Your task to perform on an android device: change timer sound Image 0: 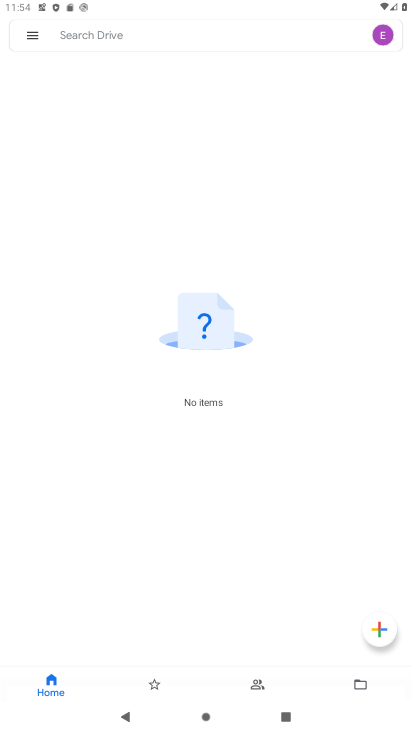
Step 0: press home button
Your task to perform on an android device: change timer sound Image 1: 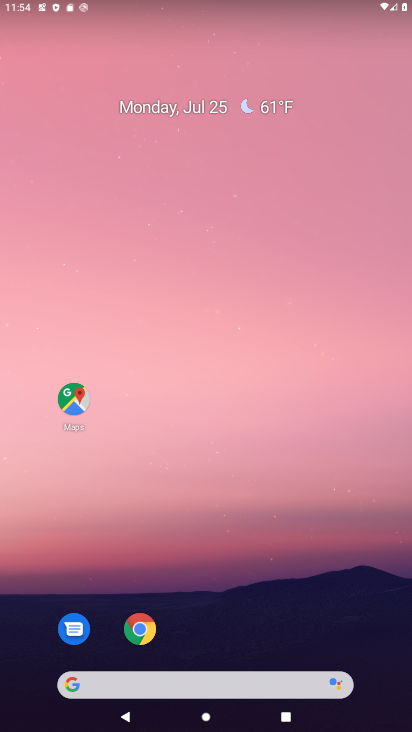
Step 1: drag from (218, 624) to (218, 199)
Your task to perform on an android device: change timer sound Image 2: 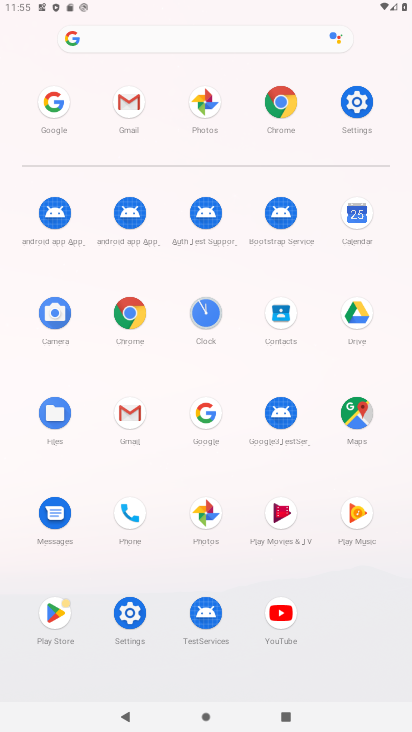
Step 2: click (197, 311)
Your task to perform on an android device: change timer sound Image 3: 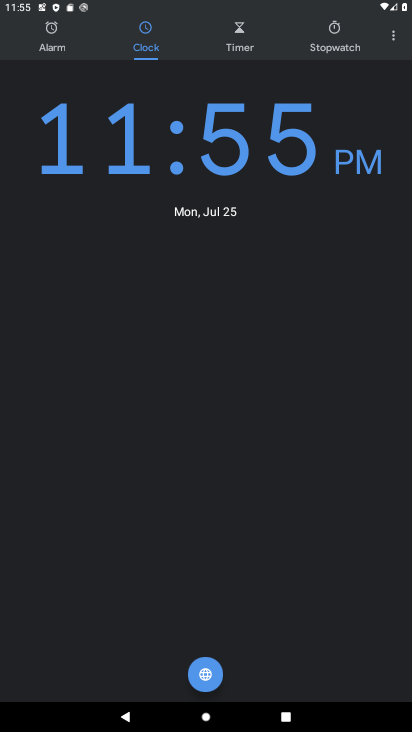
Step 3: click (391, 40)
Your task to perform on an android device: change timer sound Image 4: 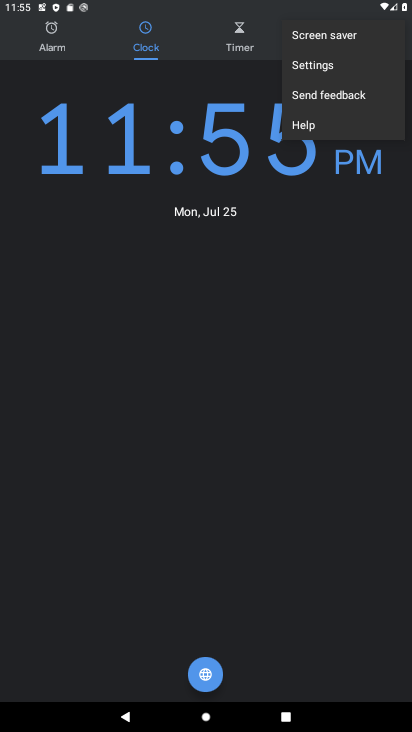
Step 4: click (305, 65)
Your task to perform on an android device: change timer sound Image 5: 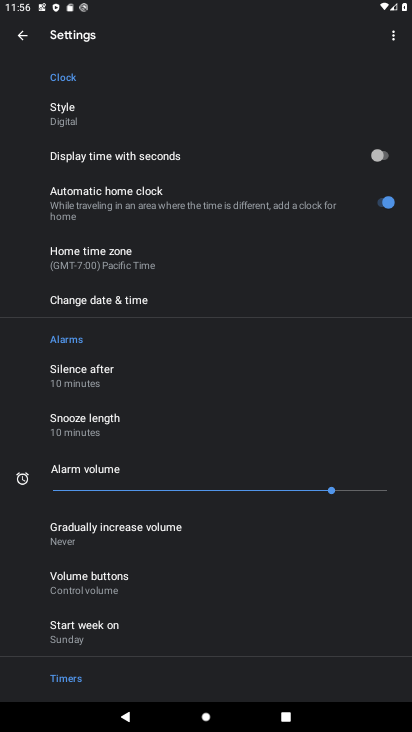
Step 5: drag from (183, 607) to (211, 272)
Your task to perform on an android device: change timer sound Image 6: 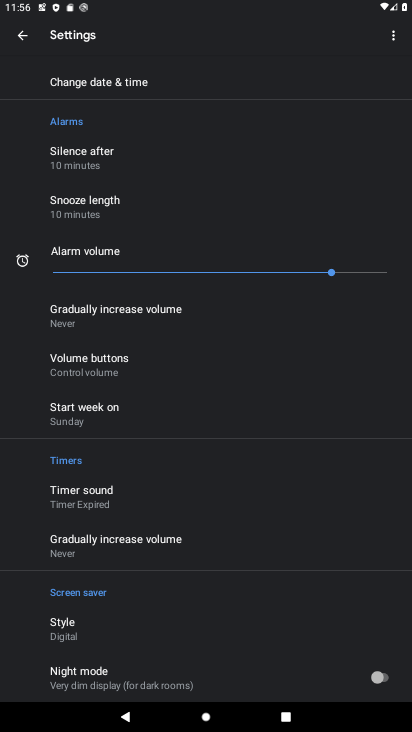
Step 6: drag from (167, 614) to (218, 347)
Your task to perform on an android device: change timer sound Image 7: 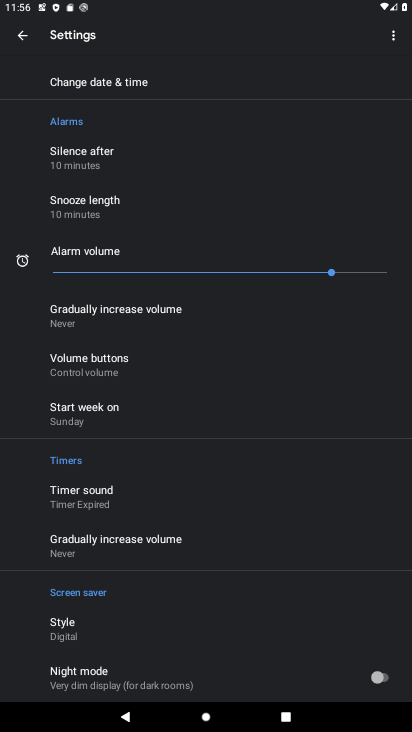
Step 7: drag from (186, 611) to (245, 250)
Your task to perform on an android device: change timer sound Image 8: 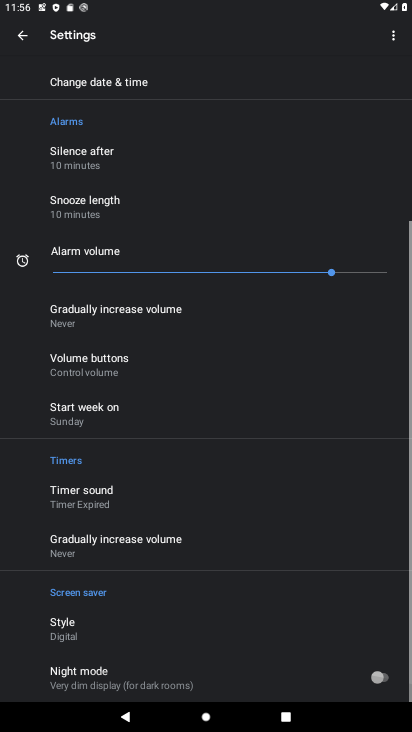
Step 8: drag from (241, 241) to (216, 539)
Your task to perform on an android device: change timer sound Image 9: 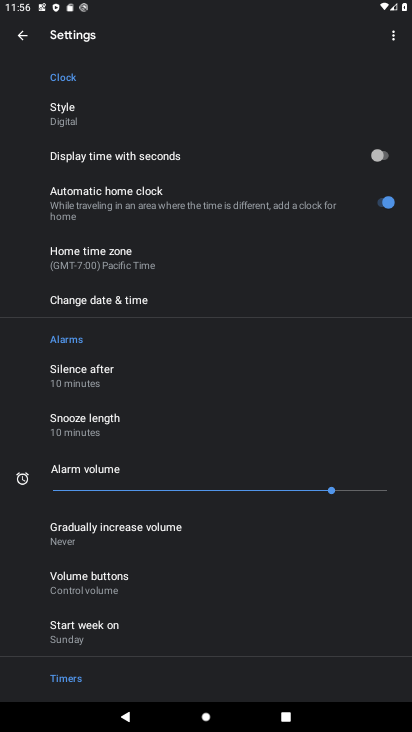
Step 9: drag from (151, 321) to (151, 504)
Your task to perform on an android device: change timer sound Image 10: 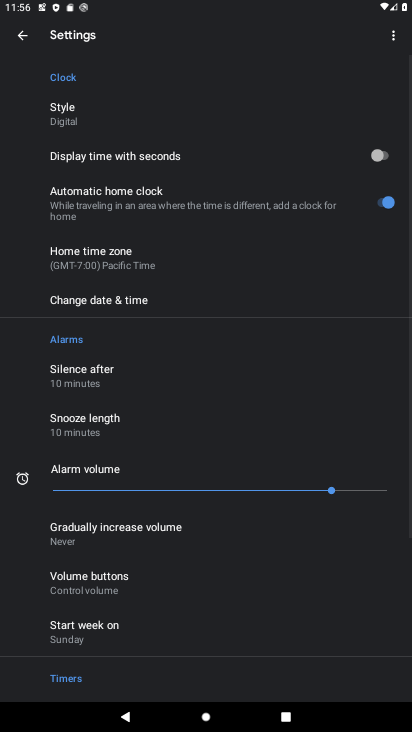
Step 10: drag from (151, 270) to (151, 572)
Your task to perform on an android device: change timer sound Image 11: 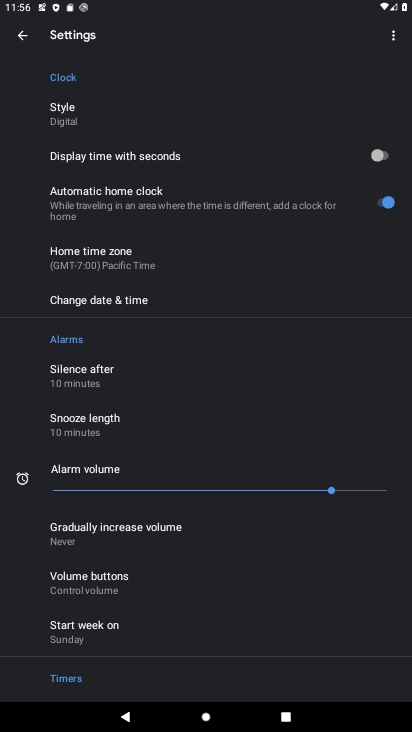
Step 11: drag from (179, 598) to (243, 199)
Your task to perform on an android device: change timer sound Image 12: 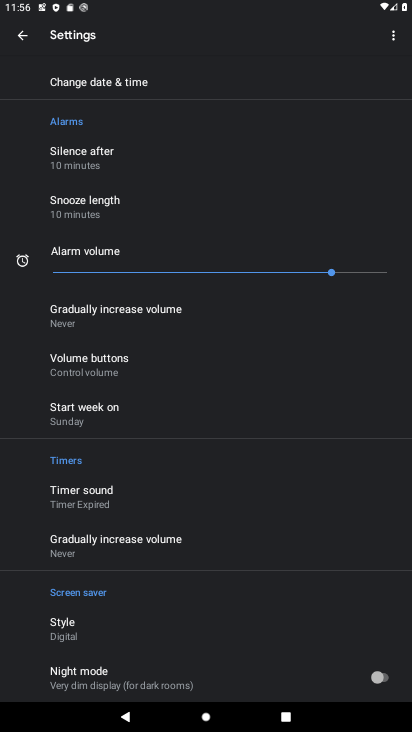
Step 12: click (161, 490)
Your task to perform on an android device: change timer sound Image 13: 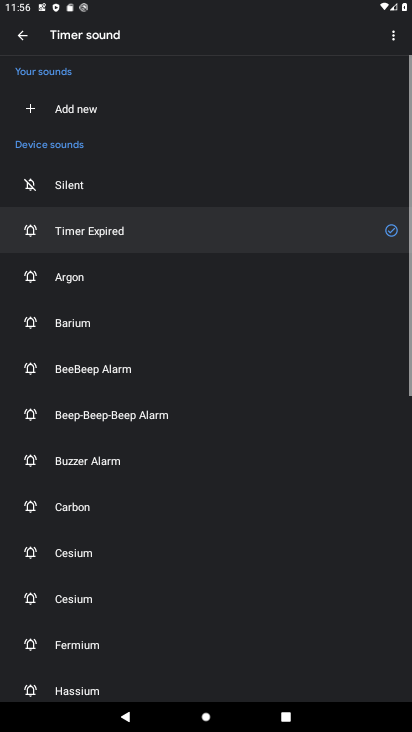
Step 13: click (191, 460)
Your task to perform on an android device: change timer sound Image 14: 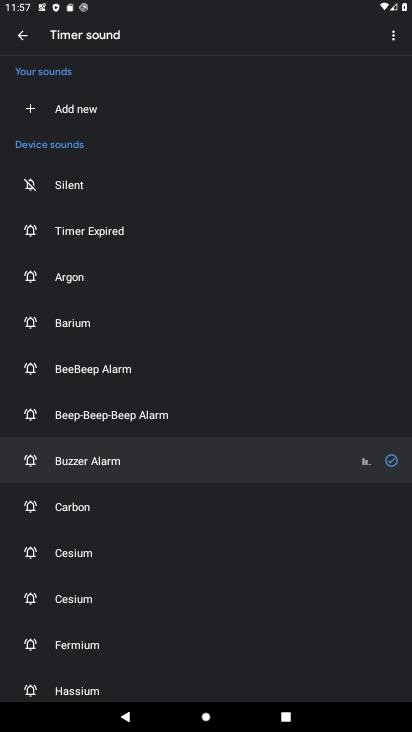
Step 14: task complete